Your task to perform on an android device: open app "ColorNote Notepad Notes" Image 0: 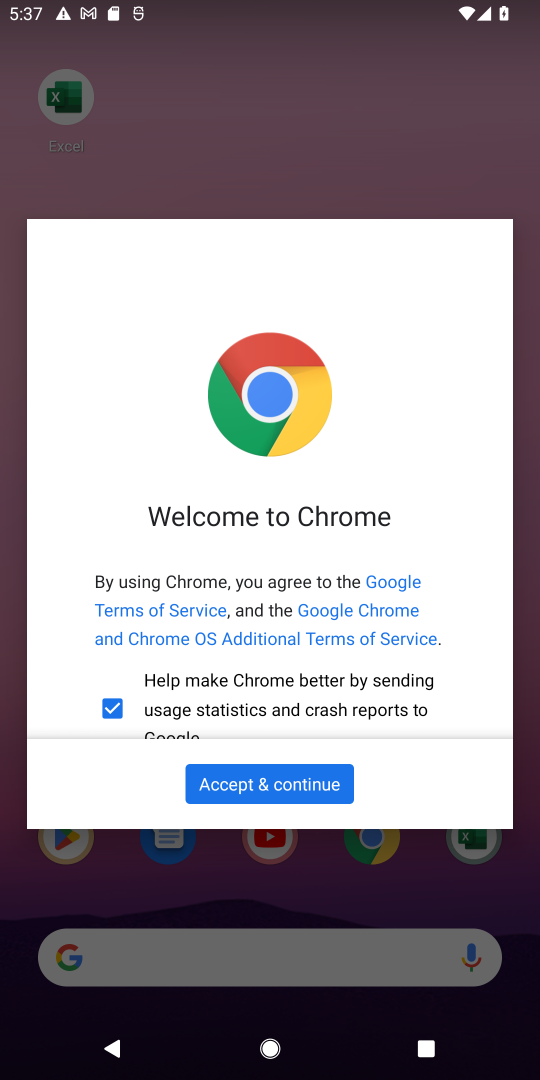
Step 0: press home button
Your task to perform on an android device: open app "ColorNote Notepad Notes" Image 1: 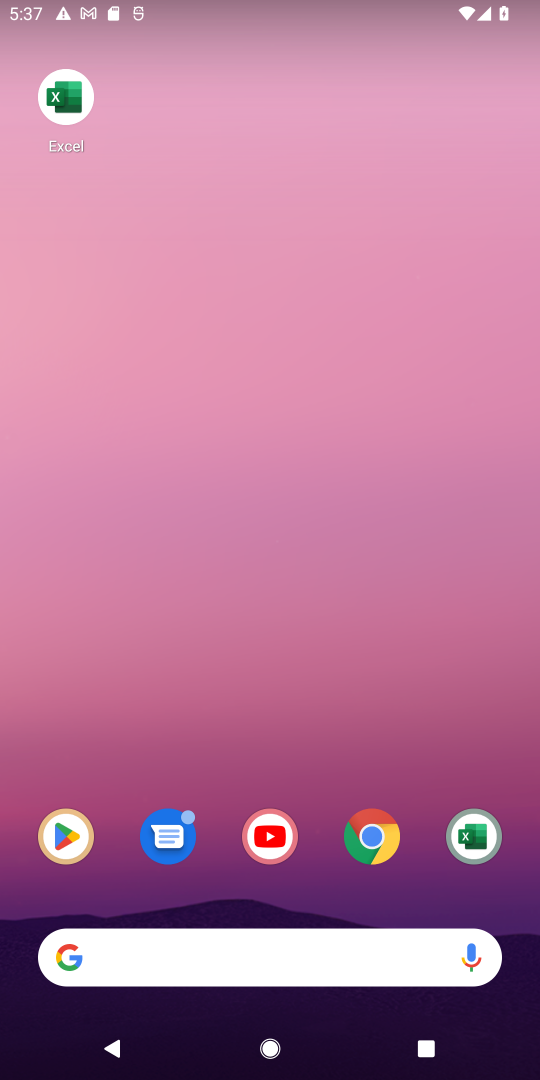
Step 1: click (67, 832)
Your task to perform on an android device: open app "ColorNote Notepad Notes" Image 2: 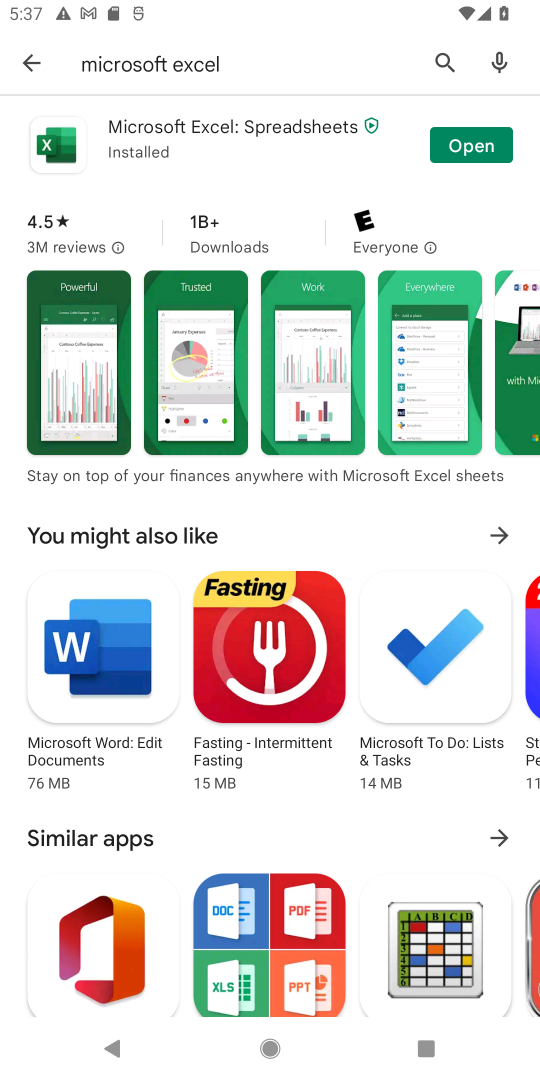
Step 2: click (434, 58)
Your task to perform on an android device: open app "ColorNote Notepad Notes" Image 3: 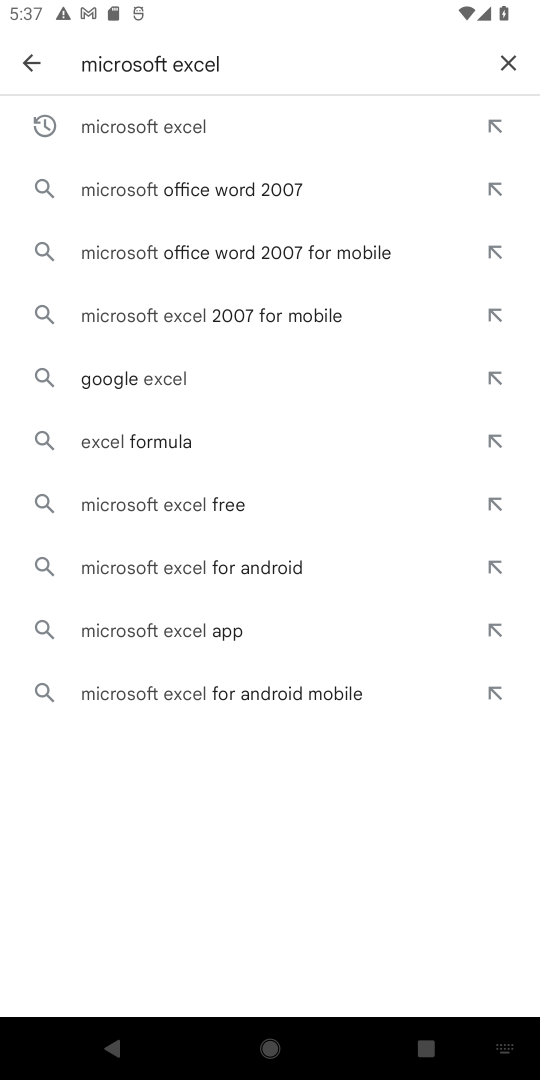
Step 3: click (513, 67)
Your task to perform on an android device: open app "ColorNote Notepad Notes" Image 4: 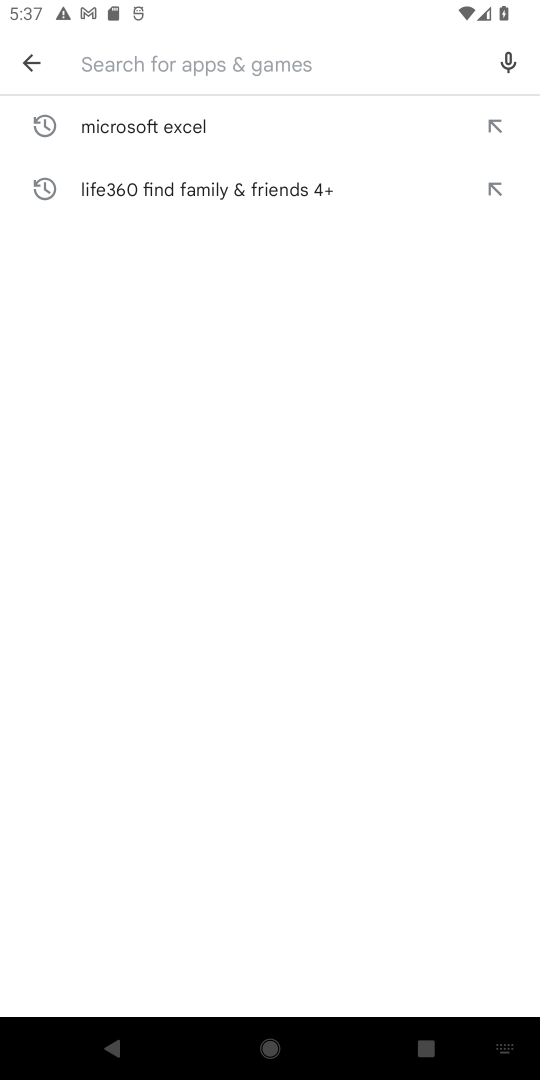
Step 4: type "ColorNote Notepad Notes"
Your task to perform on an android device: open app "ColorNote Notepad Notes" Image 5: 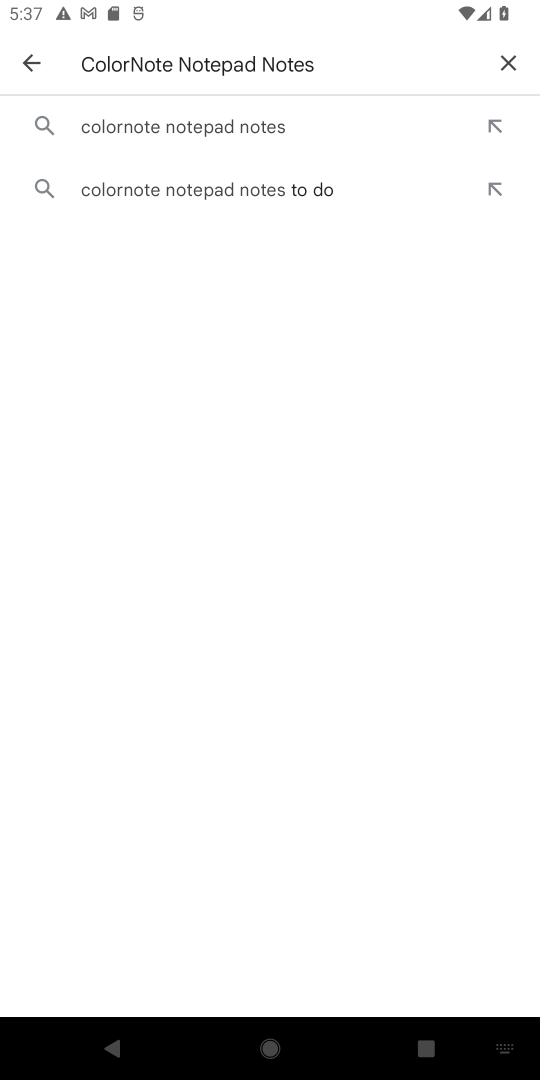
Step 5: click (236, 128)
Your task to perform on an android device: open app "ColorNote Notepad Notes" Image 6: 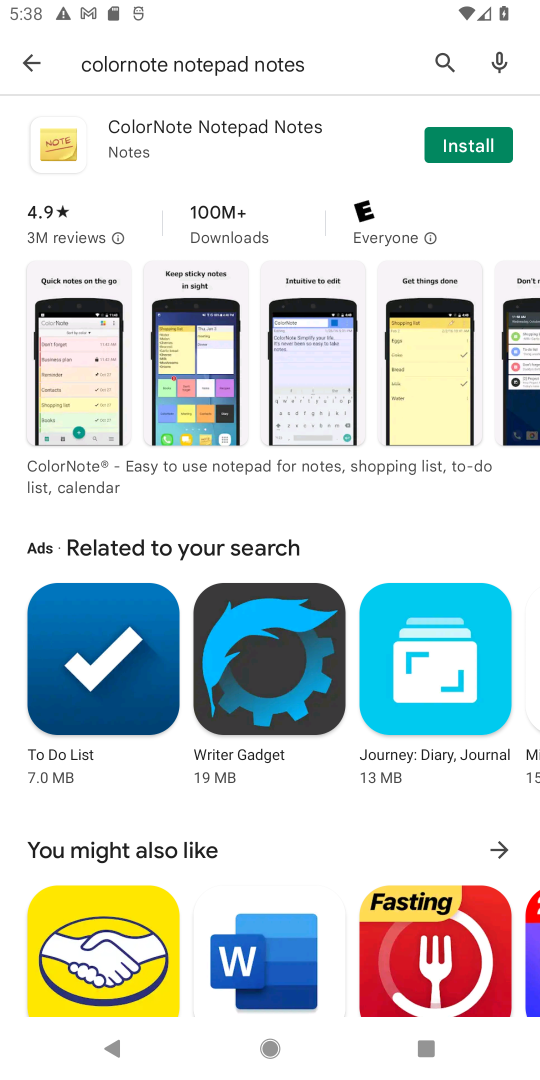
Step 6: task complete